Your task to perform on an android device: Open Youtube and go to the subscriptions tab Image 0: 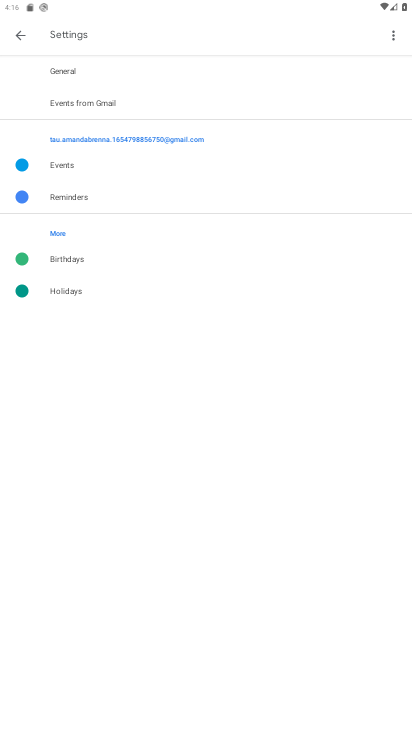
Step 0: press home button
Your task to perform on an android device: Open Youtube and go to the subscriptions tab Image 1: 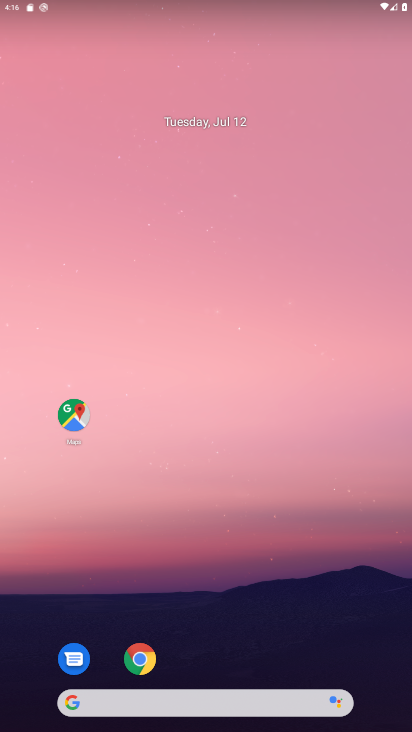
Step 1: drag from (41, 688) to (270, 249)
Your task to perform on an android device: Open Youtube and go to the subscriptions tab Image 2: 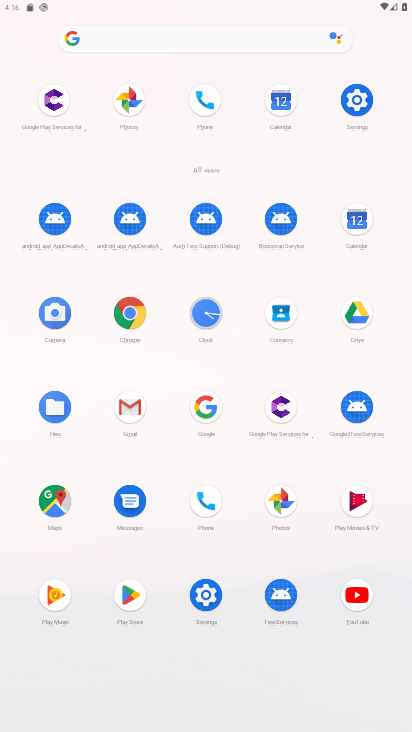
Step 2: click (345, 596)
Your task to perform on an android device: Open Youtube and go to the subscriptions tab Image 3: 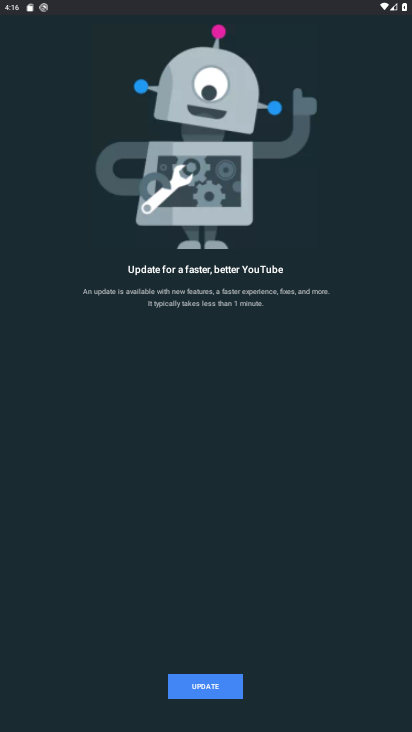
Step 3: task complete